Your task to perform on an android device: turn off picture-in-picture Image 0: 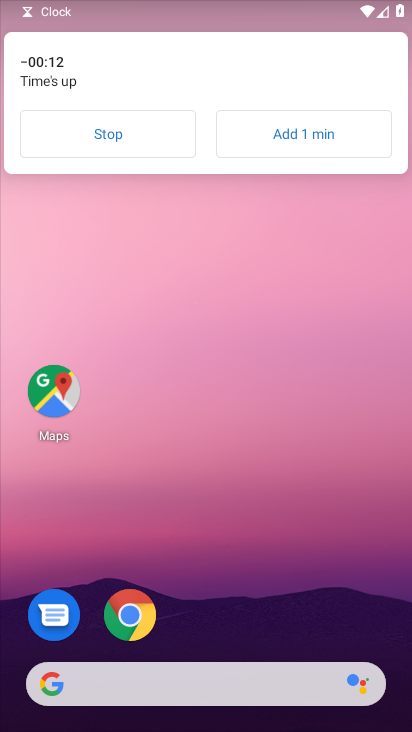
Step 0: click (135, 129)
Your task to perform on an android device: turn off picture-in-picture Image 1: 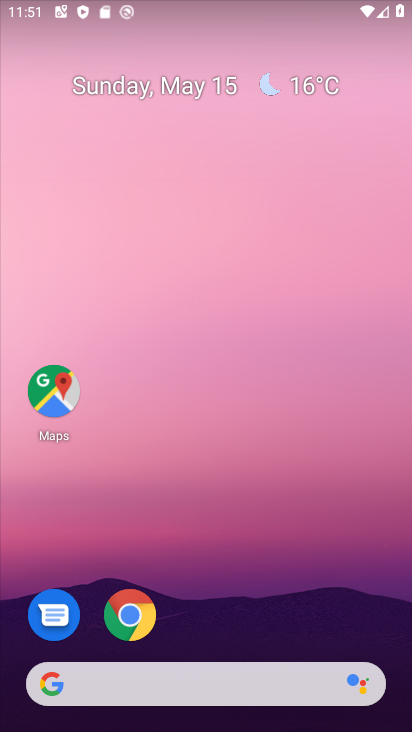
Step 1: click (309, 157)
Your task to perform on an android device: turn off picture-in-picture Image 2: 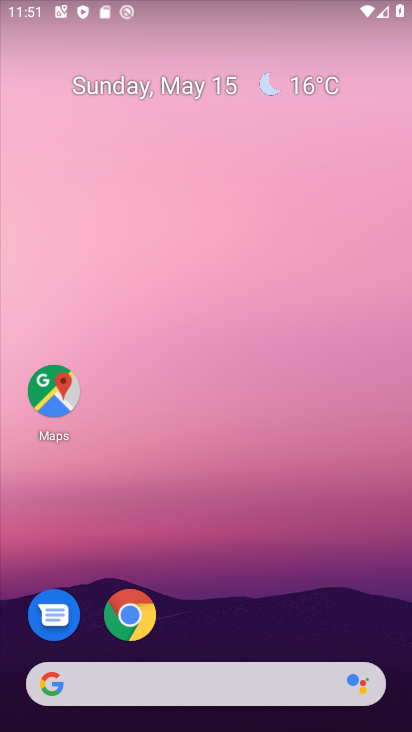
Step 2: click (309, 157)
Your task to perform on an android device: turn off picture-in-picture Image 3: 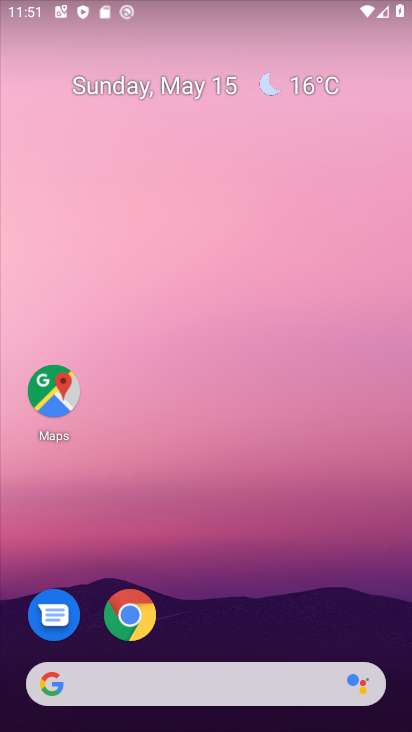
Step 3: drag from (275, 621) to (377, 24)
Your task to perform on an android device: turn off picture-in-picture Image 4: 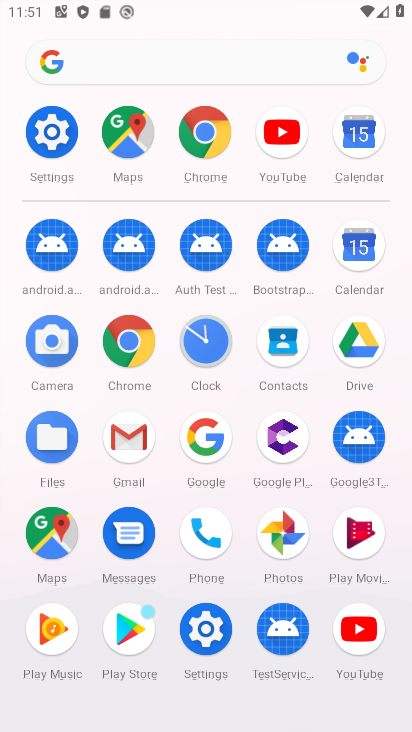
Step 4: click (192, 637)
Your task to perform on an android device: turn off picture-in-picture Image 5: 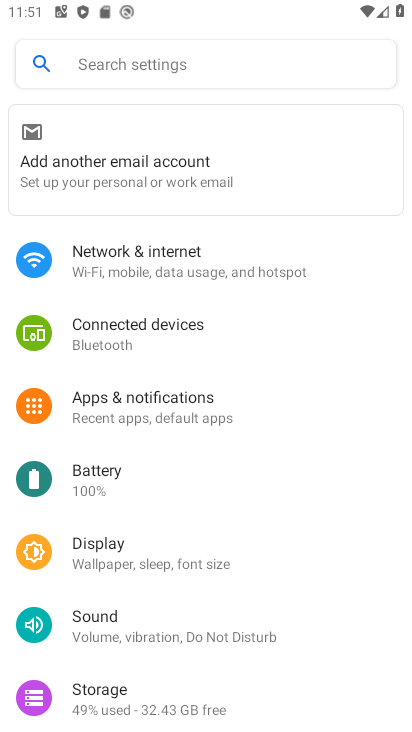
Step 5: click (179, 445)
Your task to perform on an android device: turn off picture-in-picture Image 6: 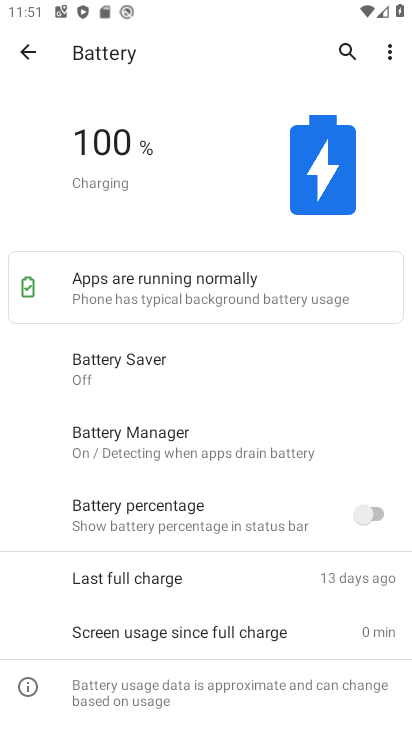
Step 6: drag from (215, 689) to (257, 294)
Your task to perform on an android device: turn off picture-in-picture Image 7: 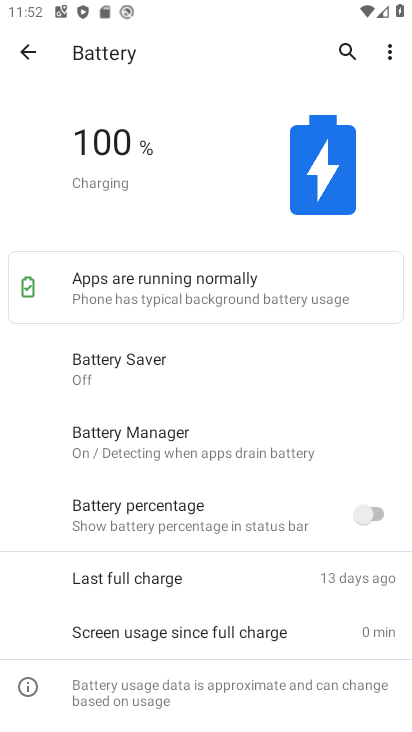
Step 7: press back button
Your task to perform on an android device: turn off picture-in-picture Image 8: 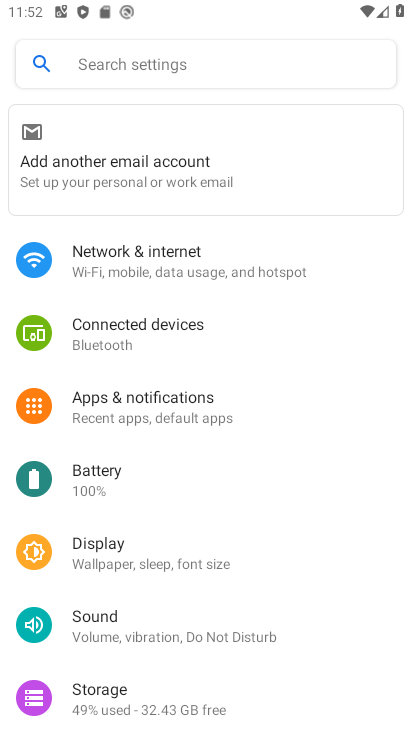
Step 8: click (251, 402)
Your task to perform on an android device: turn off picture-in-picture Image 9: 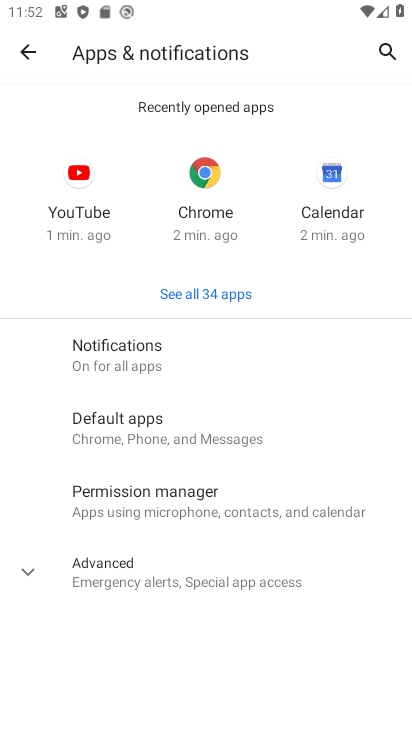
Step 9: click (270, 574)
Your task to perform on an android device: turn off picture-in-picture Image 10: 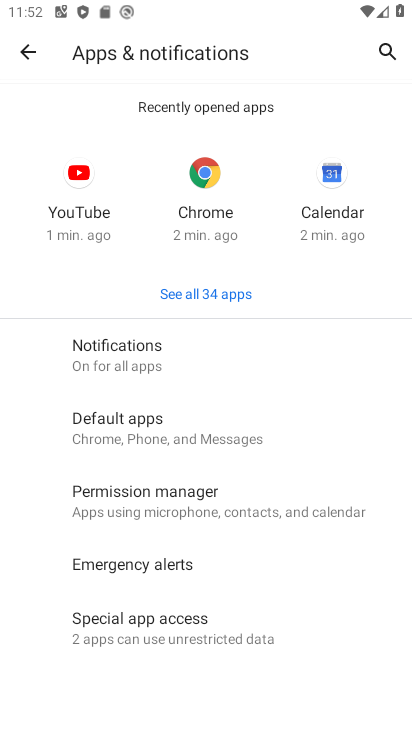
Step 10: drag from (273, 704) to (280, 392)
Your task to perform on an android device: turn off picture-in-picture Image 11: 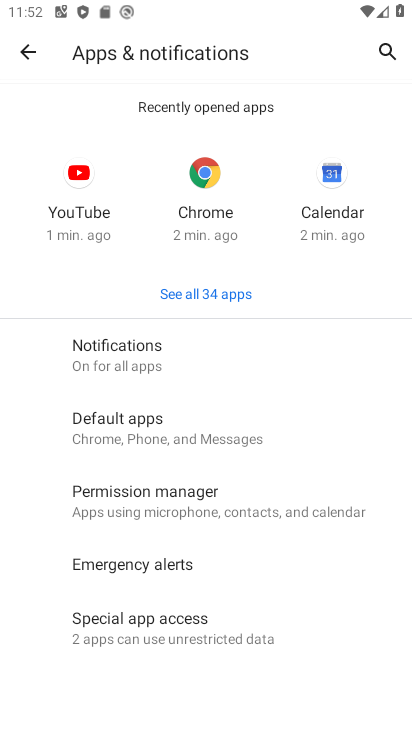
Step 11: click (231, 630)
Your task to perform on an android device: turn off picture-in-picture Image 12: 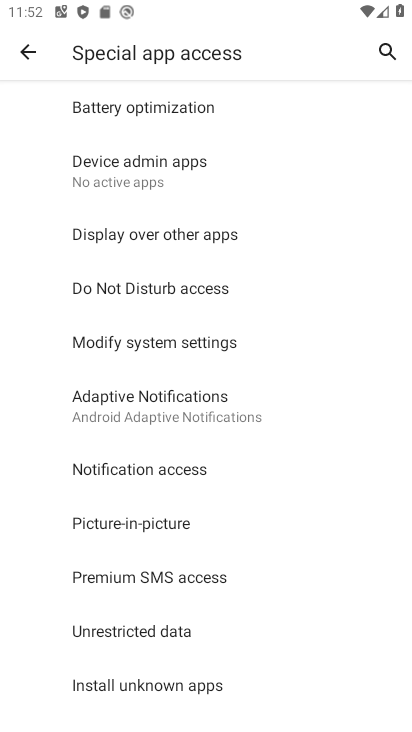
Step 12: click (170, 528)
Your task to perform on an android device: turn off picture-in-picture Image 13: 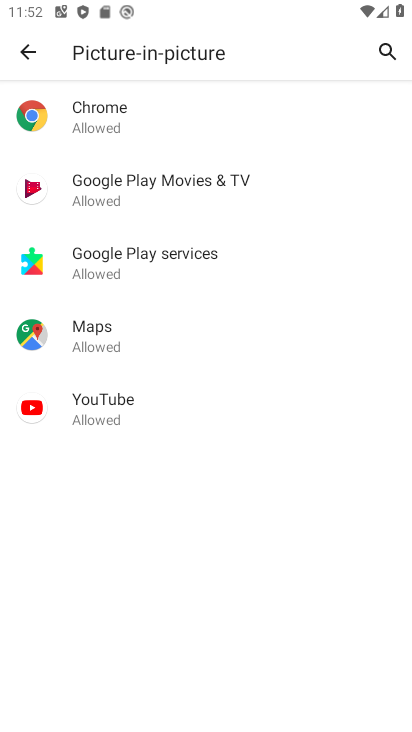
Step 13: click (153, 127)
Your task to perform on an android device: turn off picture-in-picture Image 14: 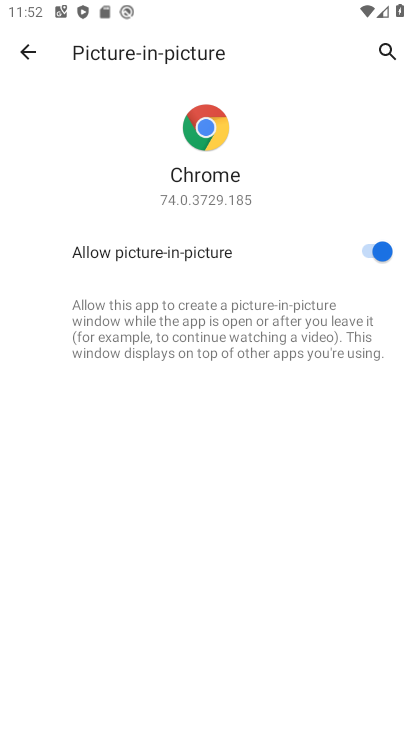
Step 14: click (362, 248)
Your task to perform on an android device: turn off picture-in-picture Image 15: 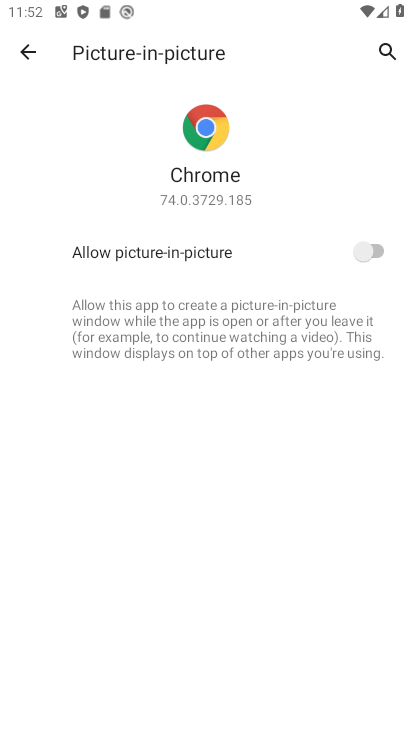
Step 15: press back button
Your task to perform on an android device: turn off picture-in-picture Image 16: 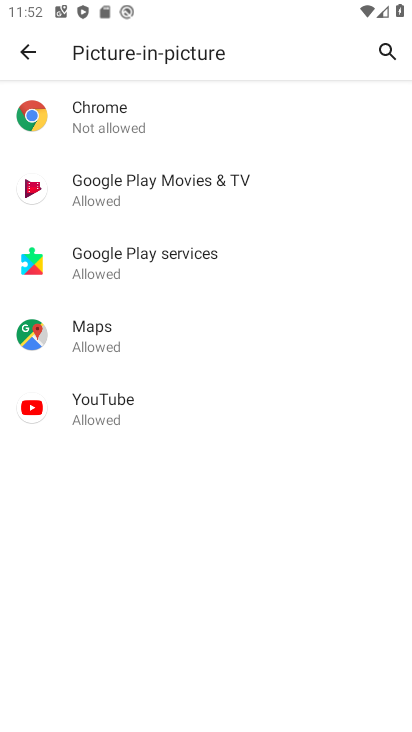
Step 16: click (138, 173)
Your task to perform on an android device: turn off picture-in-picture Image 17: 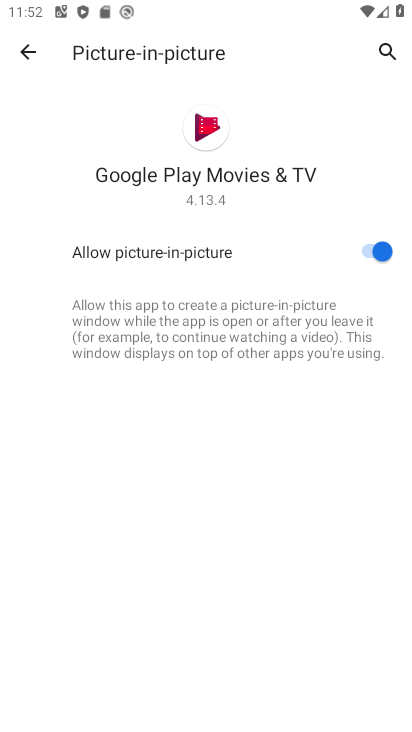
Step 17: click (366, 255)
Your task to perform on an android device: turn off picture-in-picture Image 18: 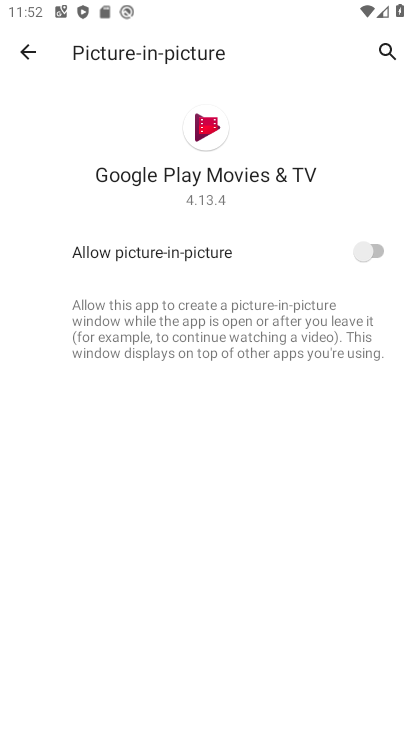
Step 18: press back button
Your task to perform on an android device: turn off picture-in-picture Image 19: 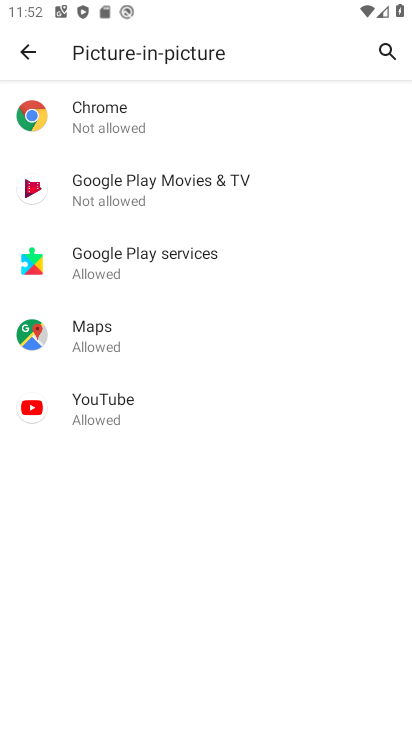
Step 19: click (196, 285)
Your task to perform on an android device: turn off picture-in-picture Image 20: 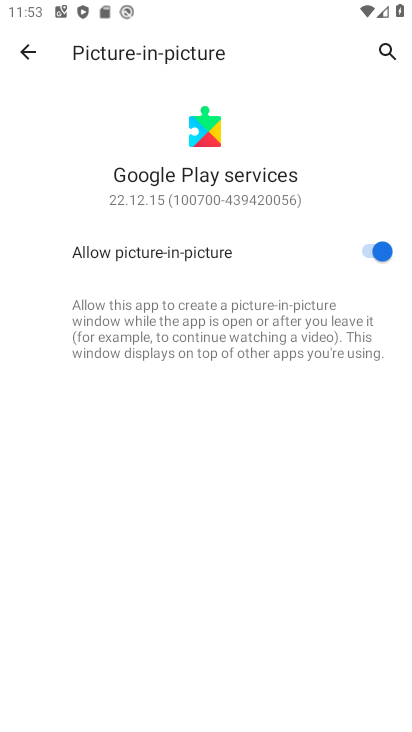
Step 20: task complete